Your task to perform on an android device: Search for Italian restaurants on Maps Image 0: 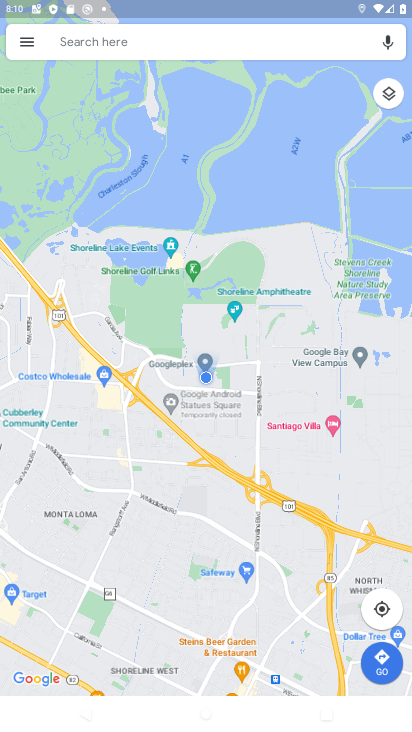
Step 0: click (82, 30)
Your task to perform on an android device: Search for Italian restaurants on Maps Image 1: 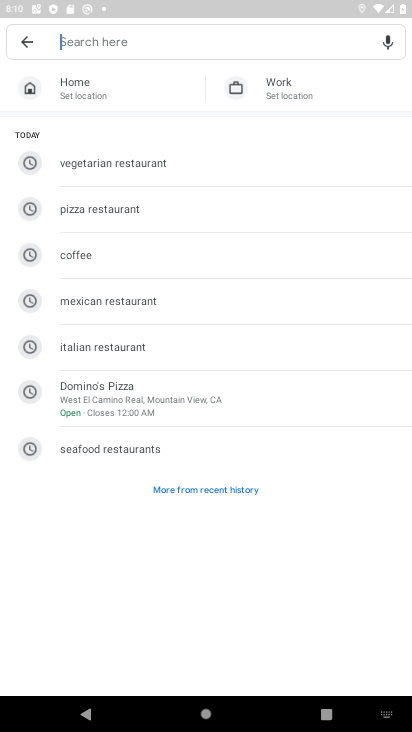
Step 1: click (135, 349)
Your task to perform on an android device: Search for Italian restaurants on Maps Image 2: 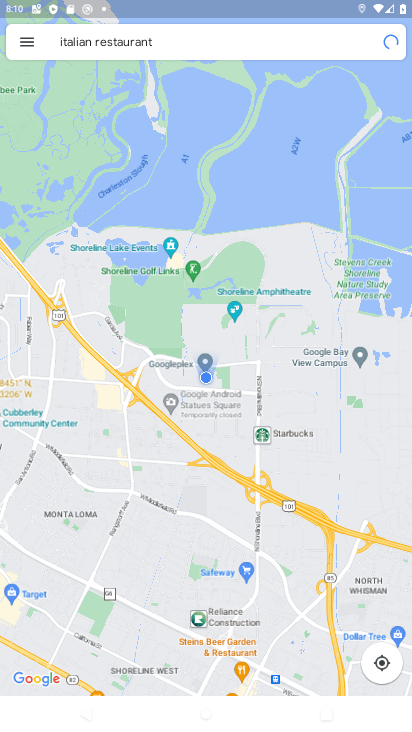
Step 2: task complete